Your task to perform on an android device: Clear the cart on bestbuy. Add razer blade to the cart on bestbuy Image 0: 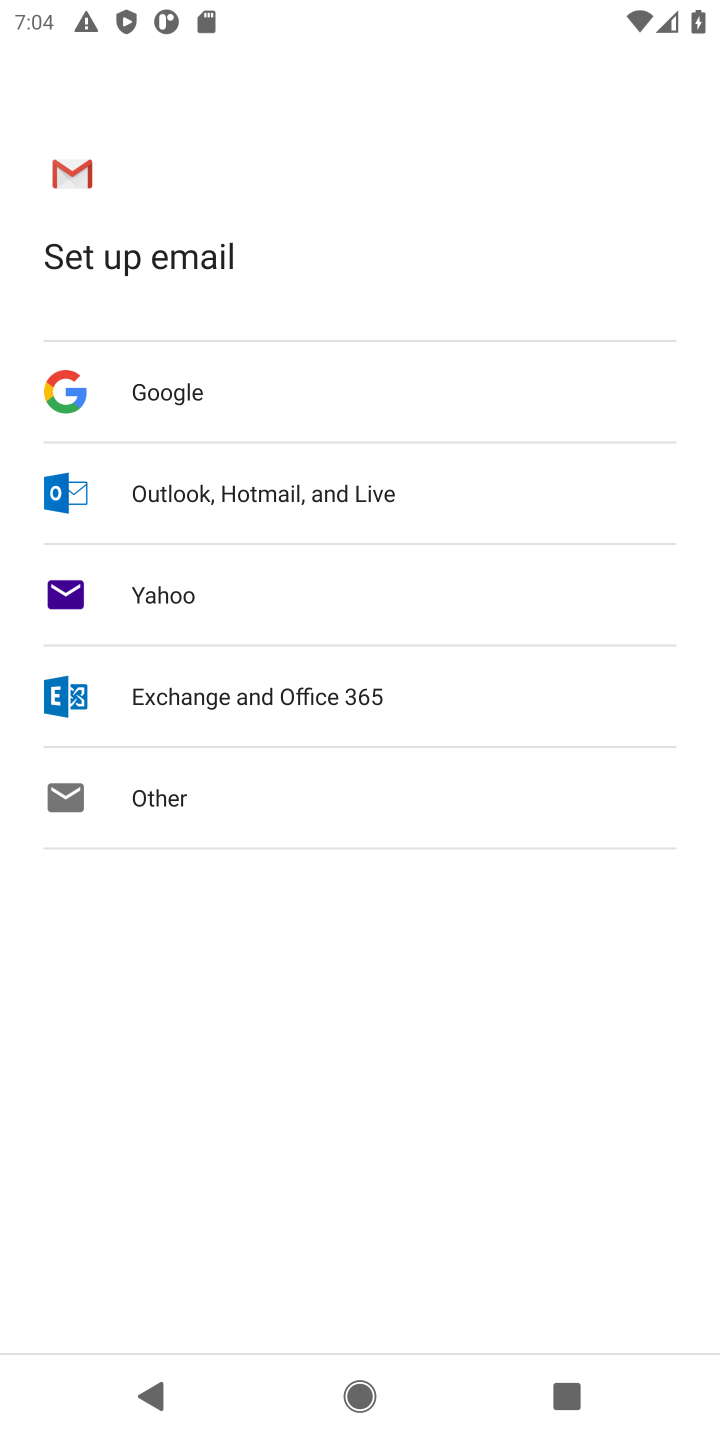
Step 0: press home button
Your task to perform on an android device: Clear the cart on bestbuy. Add razer blade to the cart on bestbuy Image 1: 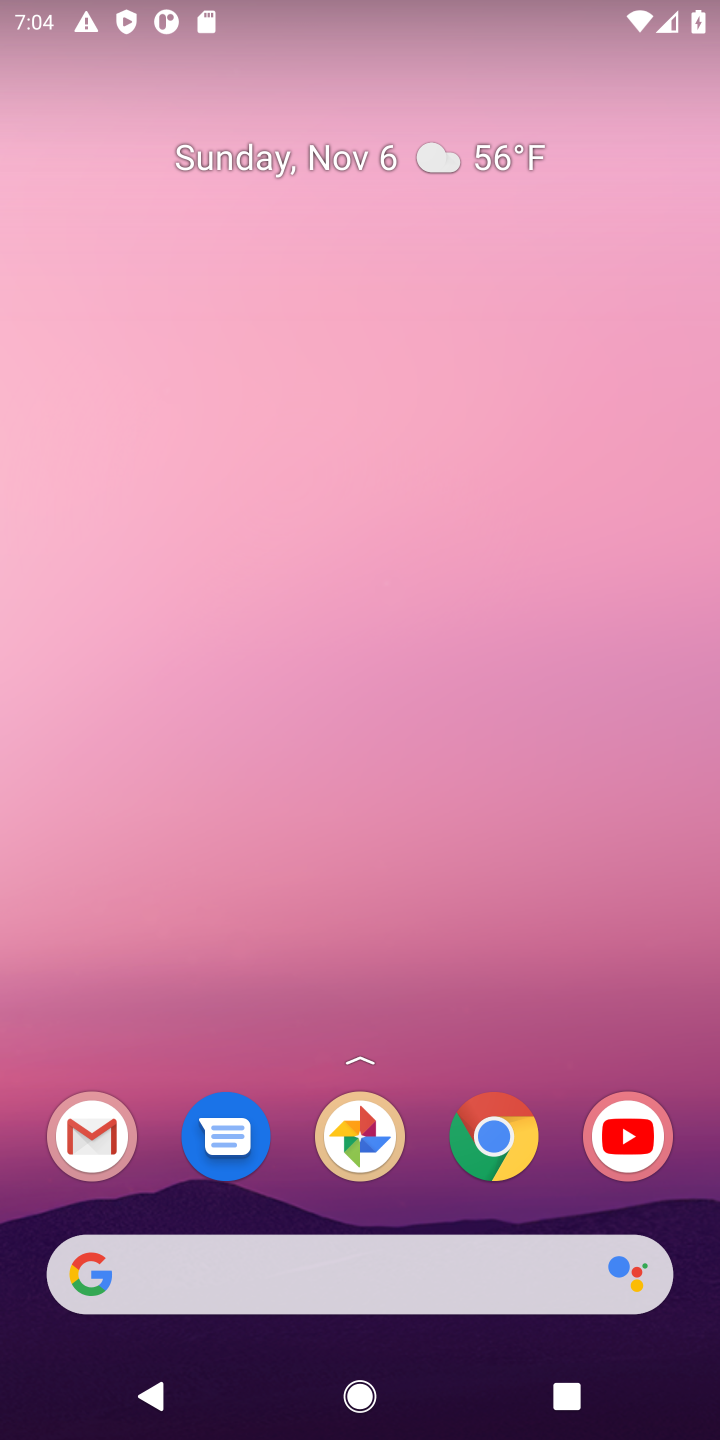
Step 1: click (285, 1293)
Your task to perform on an android device: Clear the cart on bestbuy. Add razer blade to the cart on bestbuy Image 2: 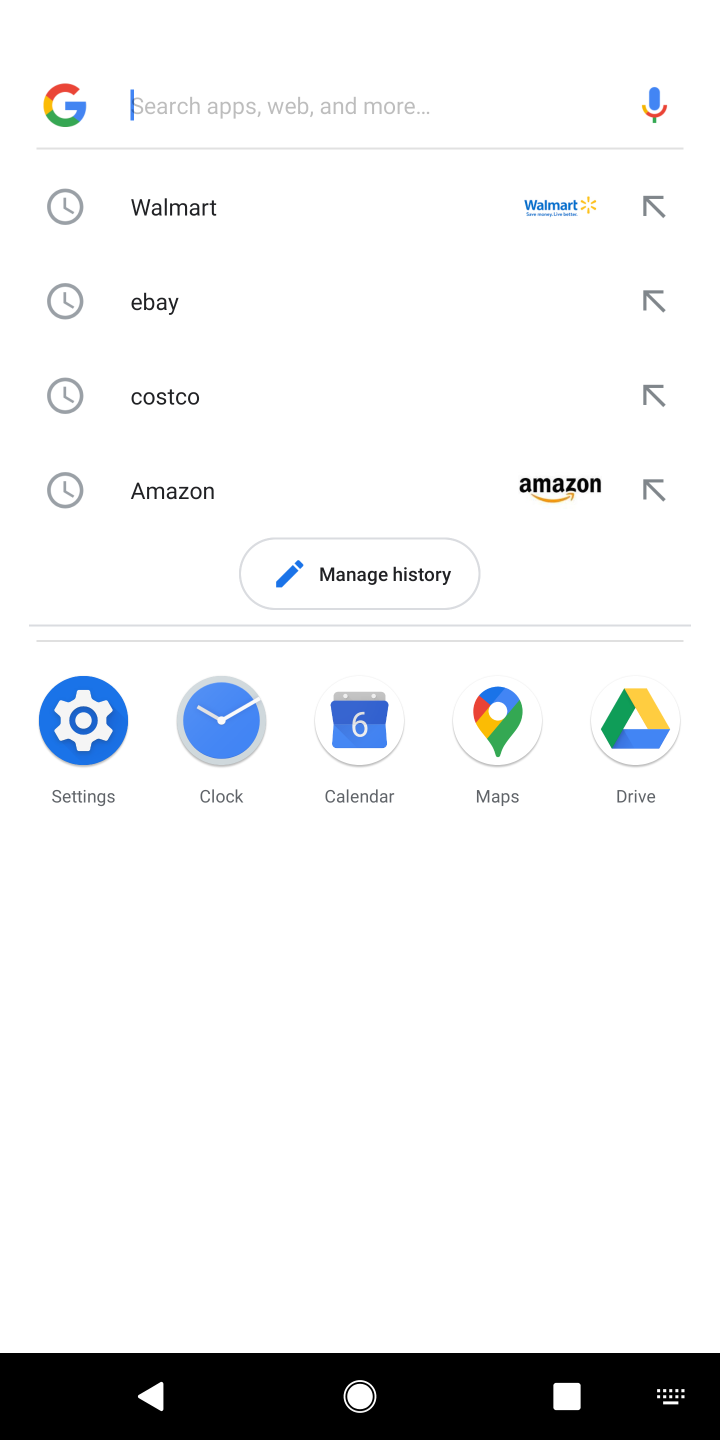
Step 2: type "best buy"
Your task to perform on an android device: Clear the cart on bestbuy. Add razer blade to the cart on bestbuy Image 3: 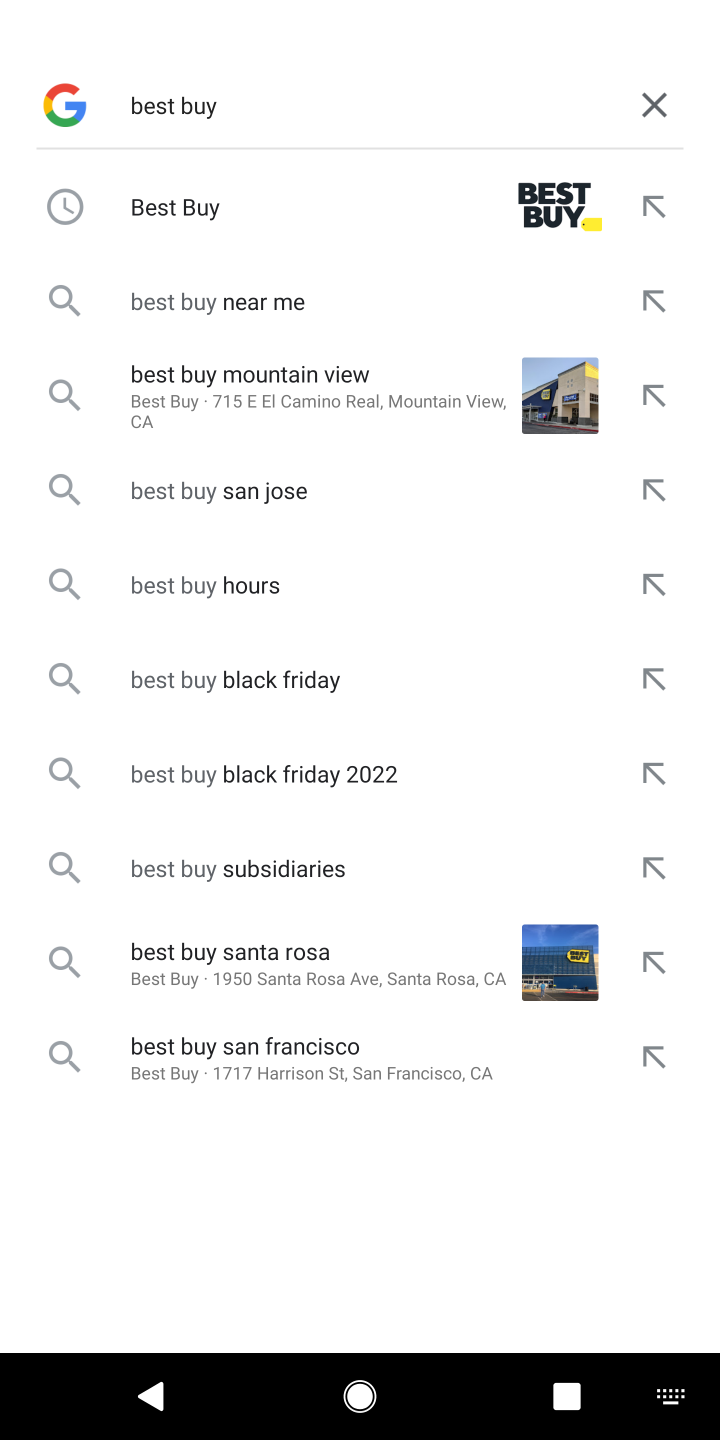
Step 3: click (420, 211)
Your task to perform on an android device: Clear the cart on bestbuy. Add razer blade to the cart on bestbuy Image 4: 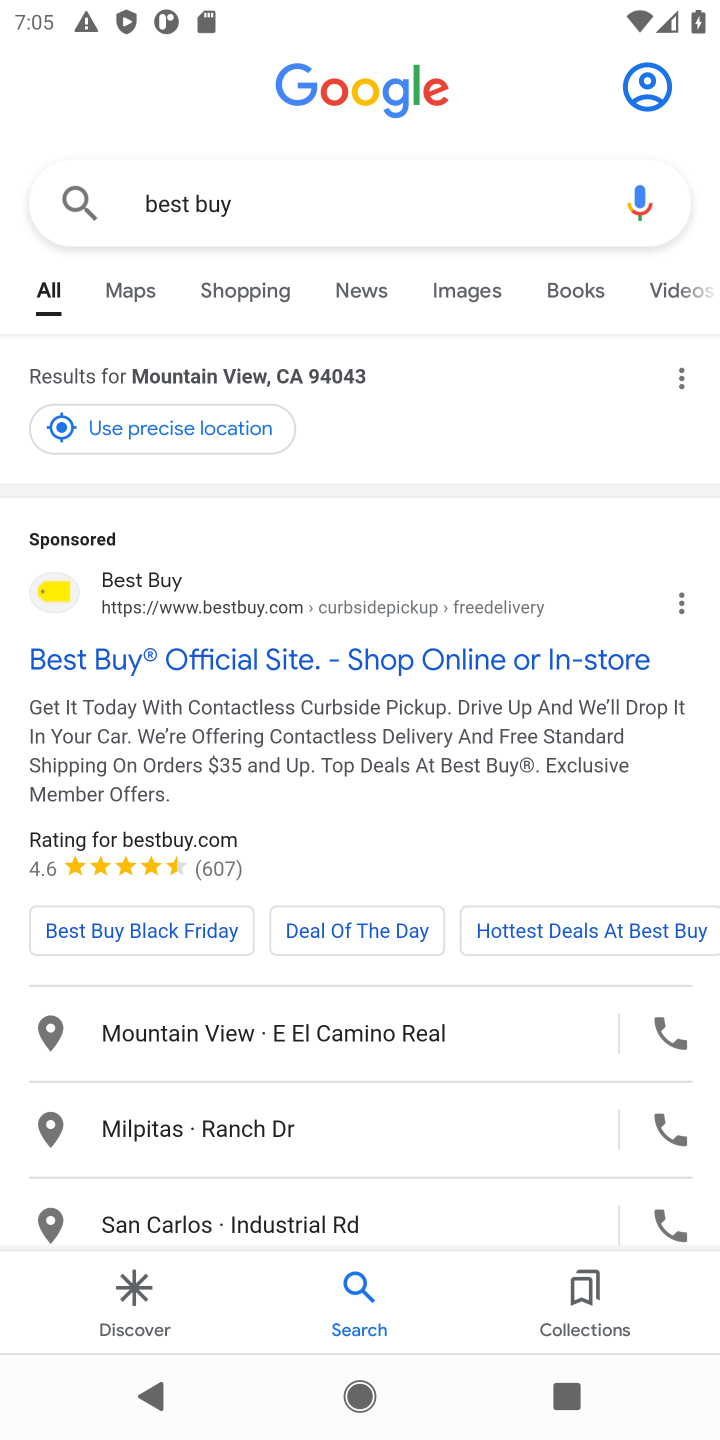
Step 4: click (206, 651)
Your task to perform on an android device: Clear the cart on bestbuy. Add razer blade to the cart on bestbuy Image 5: 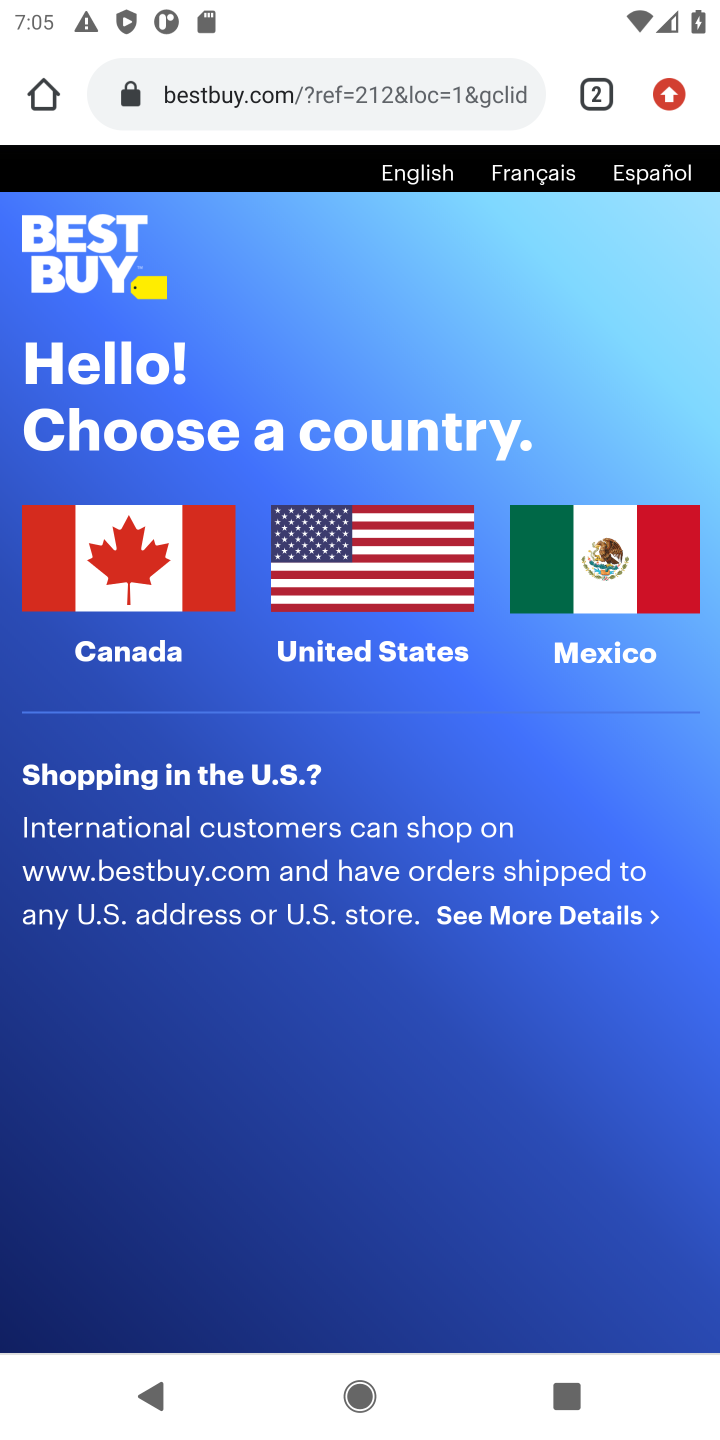
Step 5: click (170, 528)
Your task to perform on an android device: Clear the cart on bestbuy. Add razer blade to the cart on bestbuy Image 6: 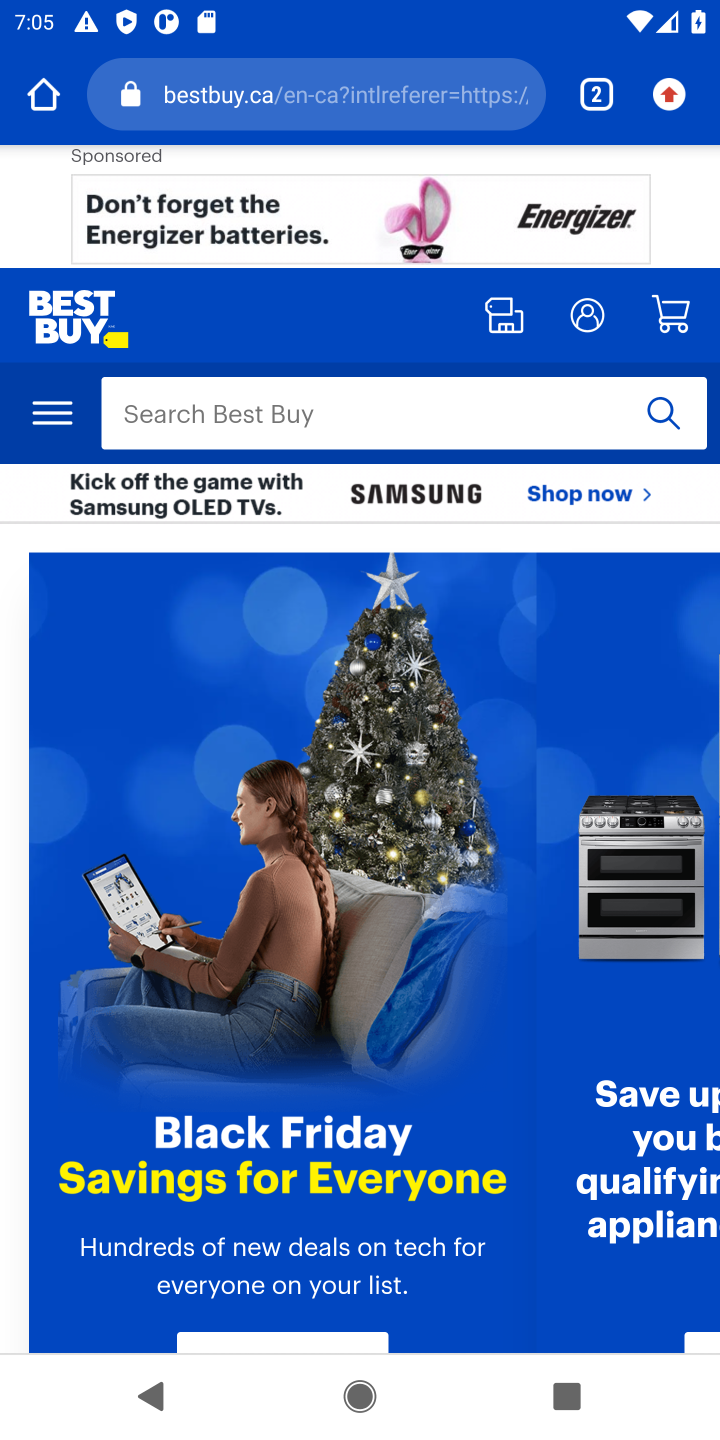
Step 6: click (187, 411)
Your task to perform on an android device: Clear the cart on bestbuy. Add razer blade to the cart on bestbuy Image 7: 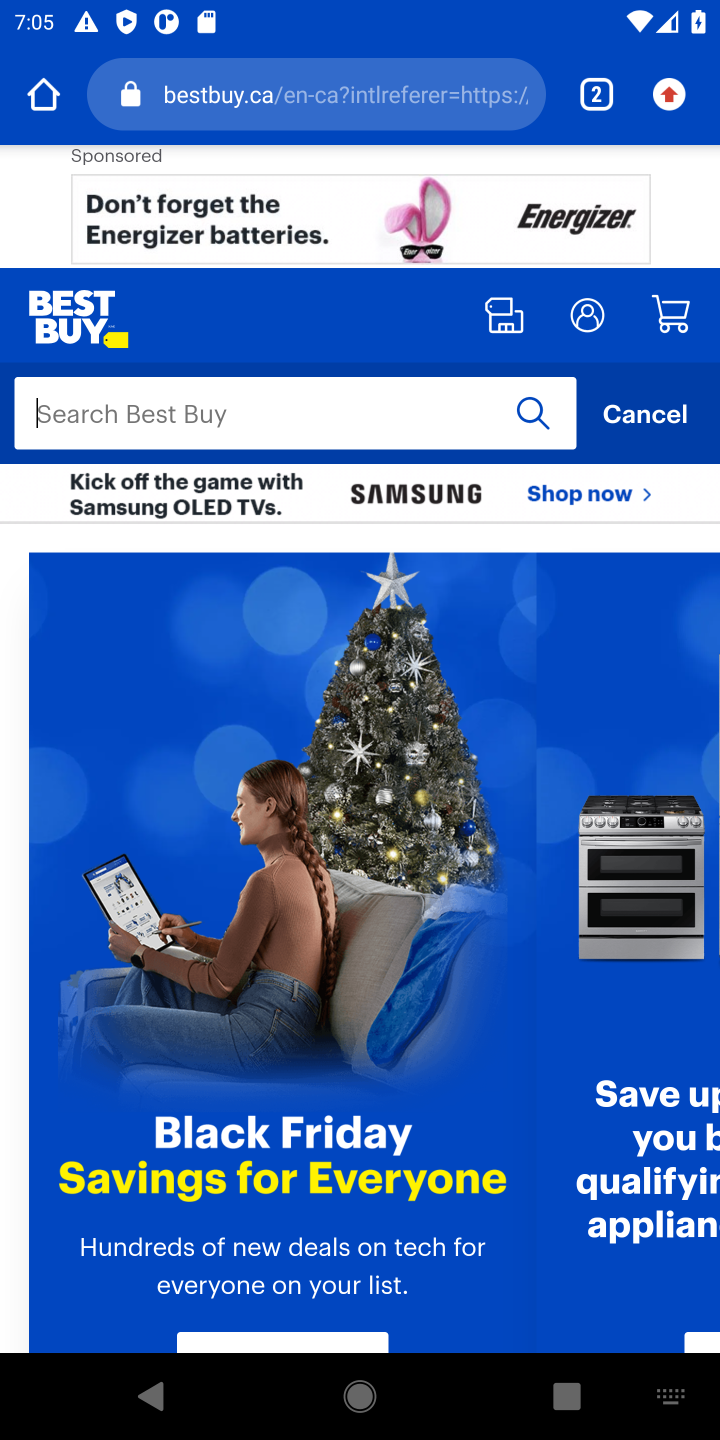
Step 7: click (652, 338)
Your task to perform on an android device: Clear the cart on bestbuy. Add razer blade to the cart on bestbuy Image 8: 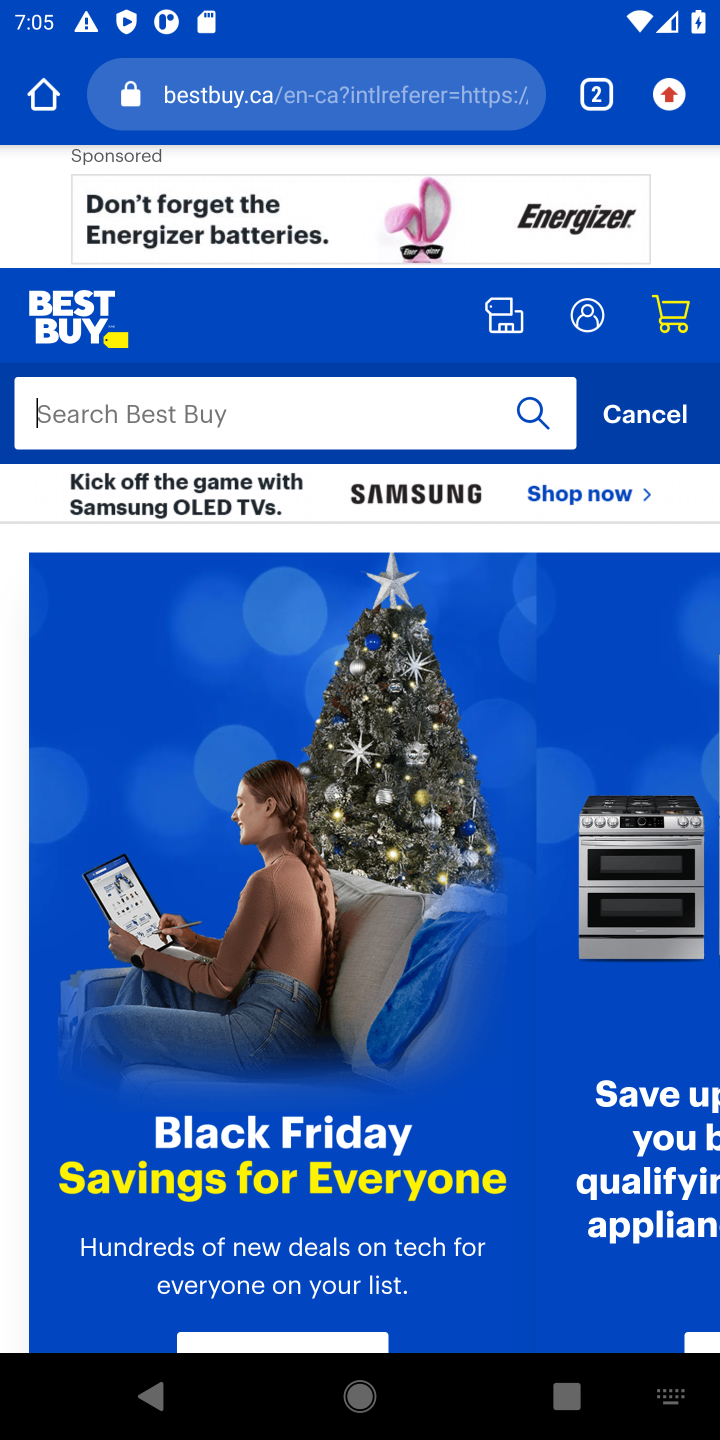
Step 8: task complete